Your task to perform on an android device: Go to Reddit.com Image 0: 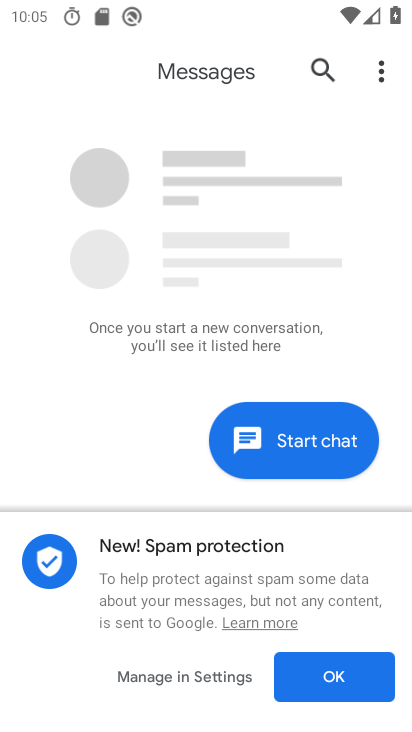
Step 0: click (151, 675)
Your task to perform on an android device: Go to Reddit.com Image 1: 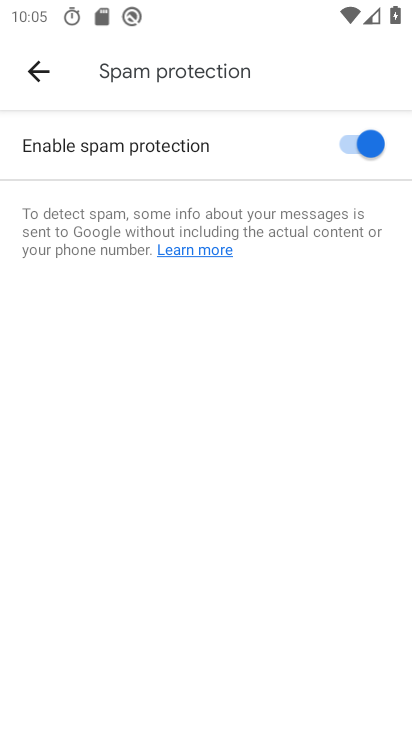
Step 1: press home button
Your task to perform on an android device: Go to Reddit.com Image 2: 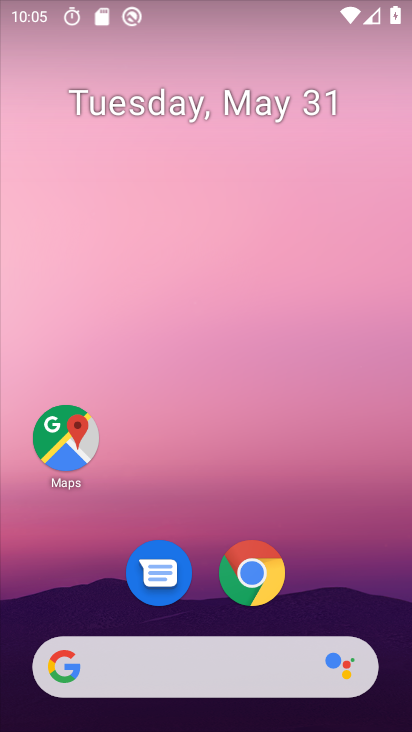
Step 2: drag from (203, 548) to (248, 128)
Your task to perform on an android device: Go to Reddit.com Image 3: 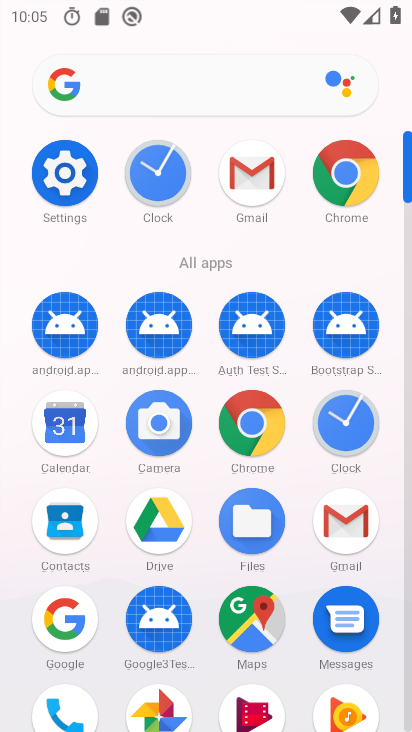
Step 3: click (245, 429)
Your task to perform on an android device: Go to Reddit.com Image 4: 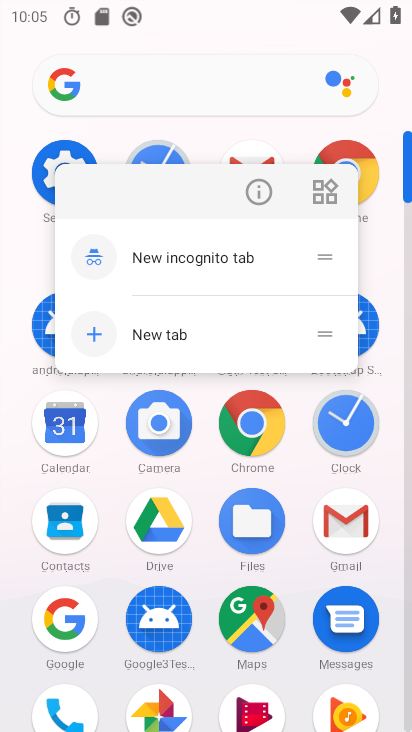
Step 4: click (214, 326)
Your task to perform on an android device: Go to Reddit.com Image 5: 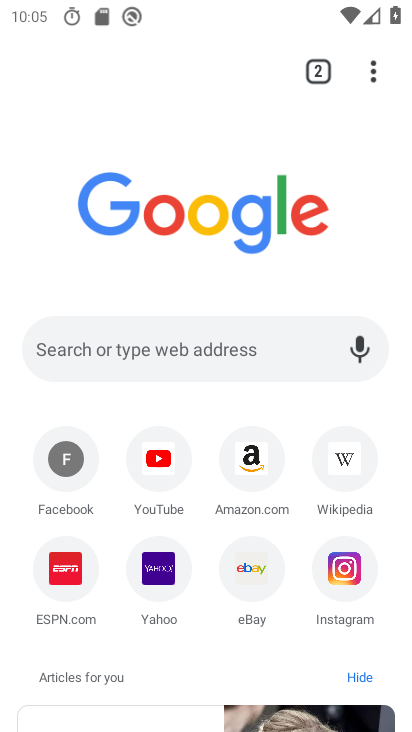
Step 5: click (214, 326)
Your task to perform on an android device: Go to Reddit.com Image 6: 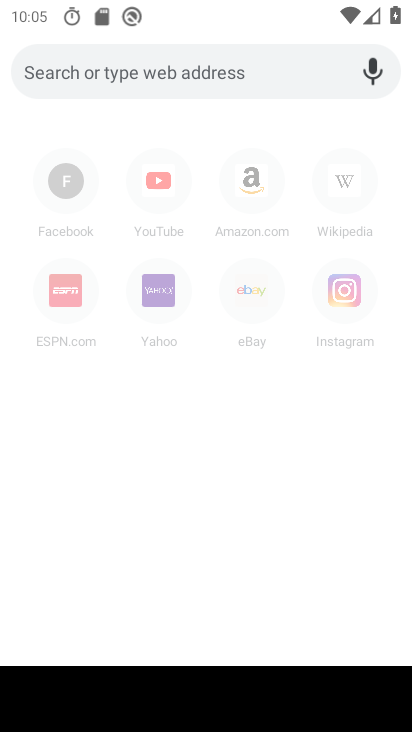
Step 6: type "reddit"
Your task to perform on an android device: Go to Reddit.com Image 7: 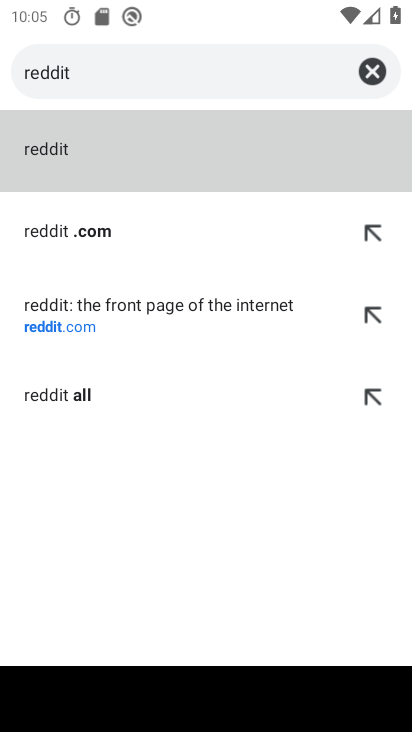
Step 7: click (68, 333)
Your task to perform on an android device: Go to Reddit.com Image 8: 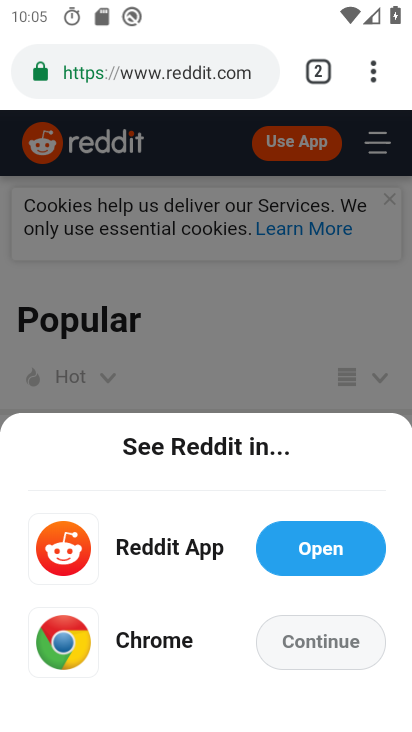
Step 8: task complete